Your task to perform on an android device: Clear the shopping cart on newegg. Search for "razer nari" on newegg, select the first entry, and add it to the cart. Image 0: 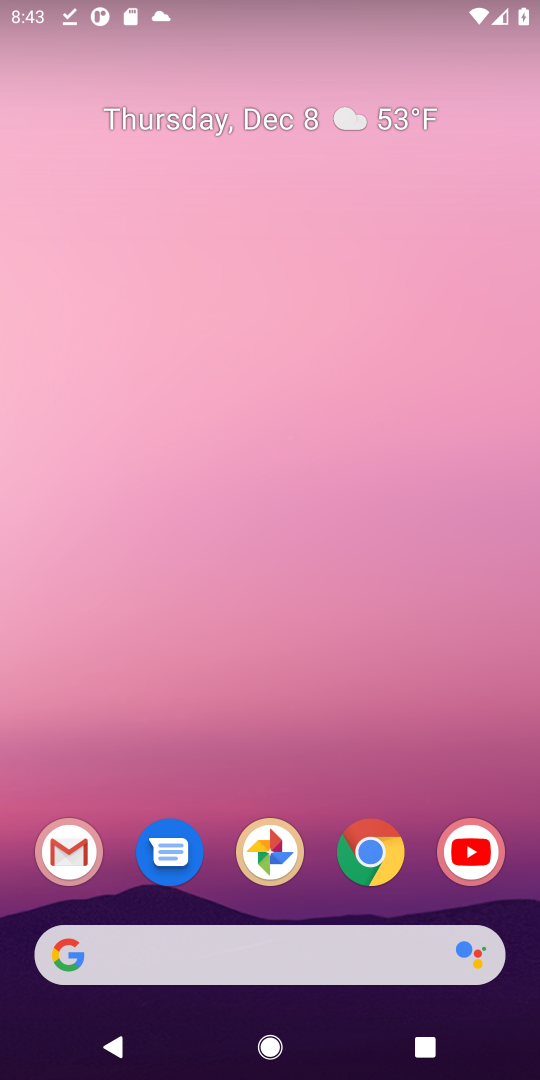
Step 0: click (288, 963)
Your task to perform on an android device: Clear the shopping cart on newegg. Search for "razer nari" on newegg, select the first entry, and add it to the cart. Image 1: 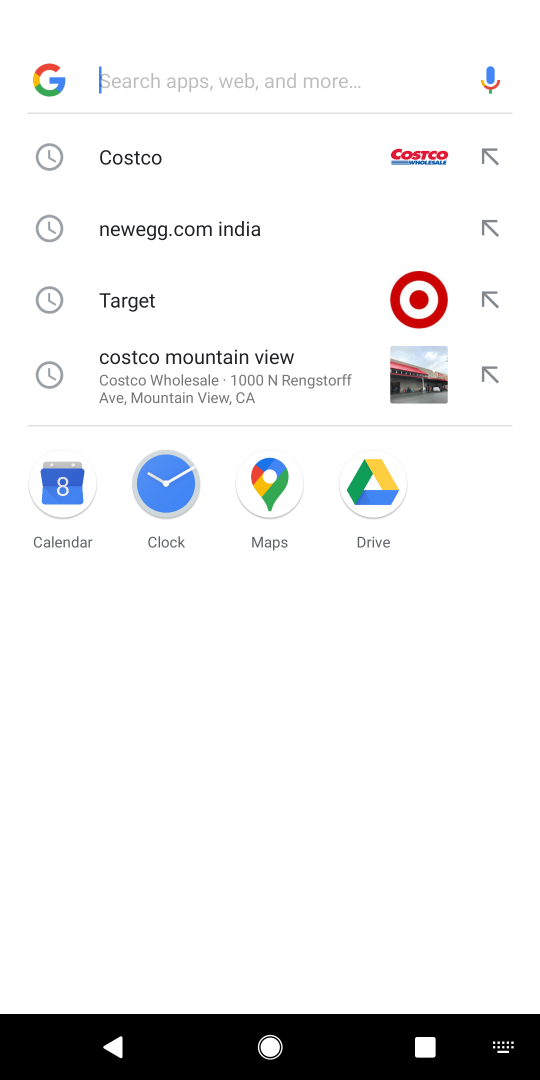
Step 1: type "newegg"
Your task to perform on an android device: Clear the shopping cart on newegg. Search for "razer nari" on newegg, select the first entry, and add it to the cart. Image 2: 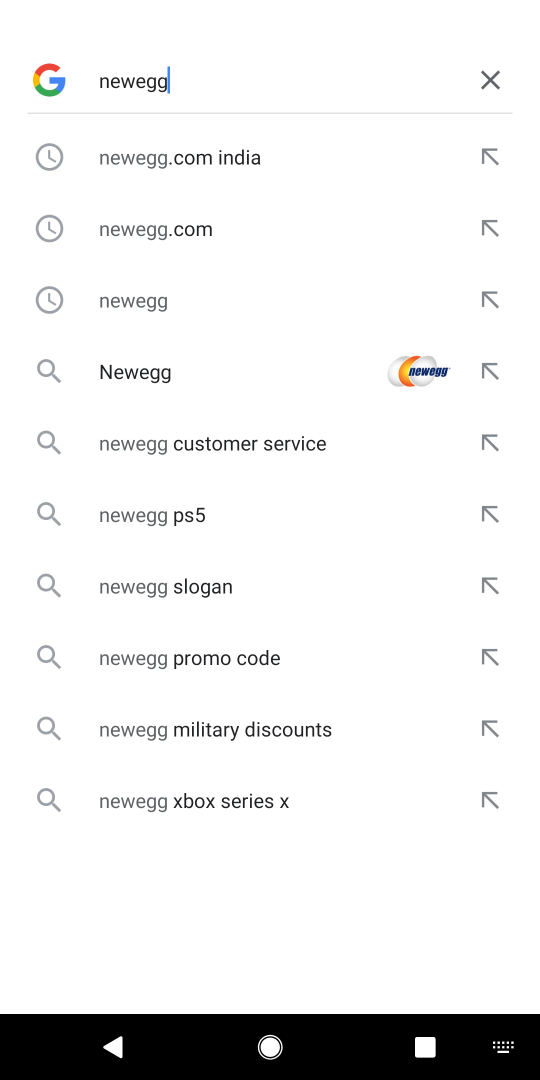
Step 2: click (156, 228)
Your task to perform on an android device: Clear the shopping cart on newegg. Search for "razer nari" on newegg, select the first entry, and add it to the cart. Image 3: 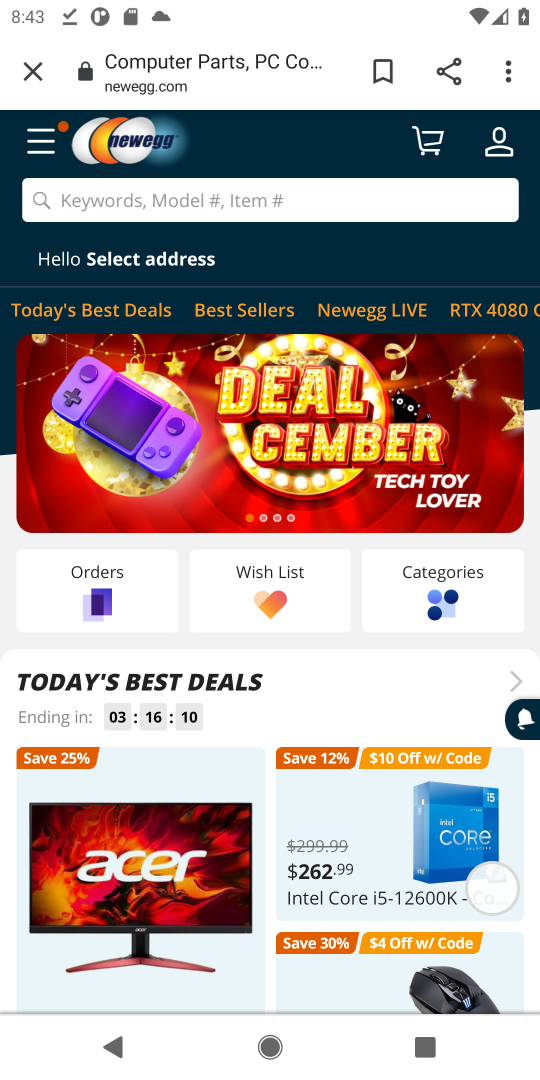
Step 3: click (159, 206)
Your task to perform on an android device: Clear the shopping cart on newegg. Search for "razer nari" on newegg, select the first entry, and add it to the cart. Image 4: 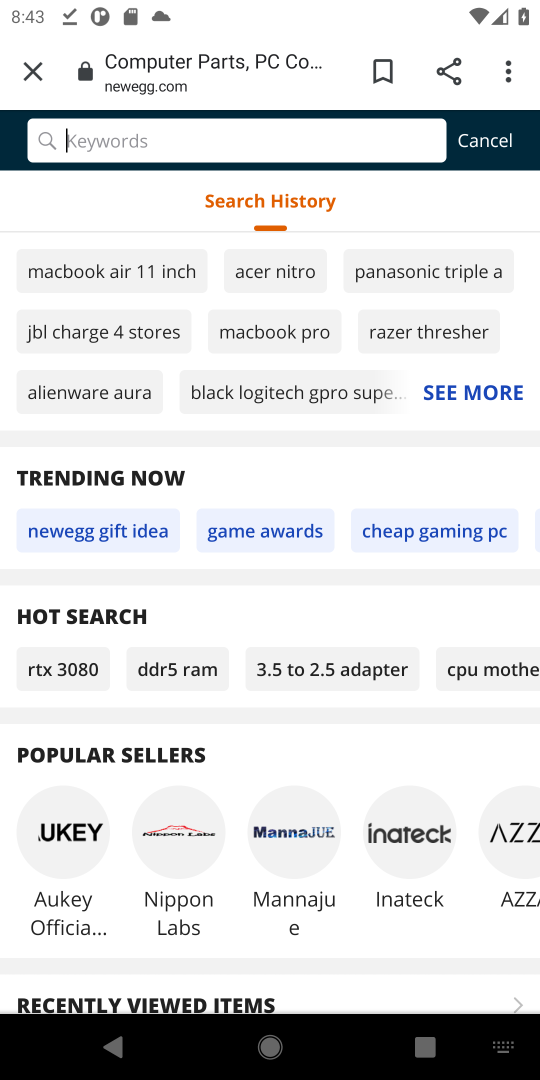
Step 4: type "razer nari"
Your task to perform on an android device: Clear the shopping cart on newegg. Search for "razer nari" on newegg, select the first entry, and add it to the cart. Image 5: 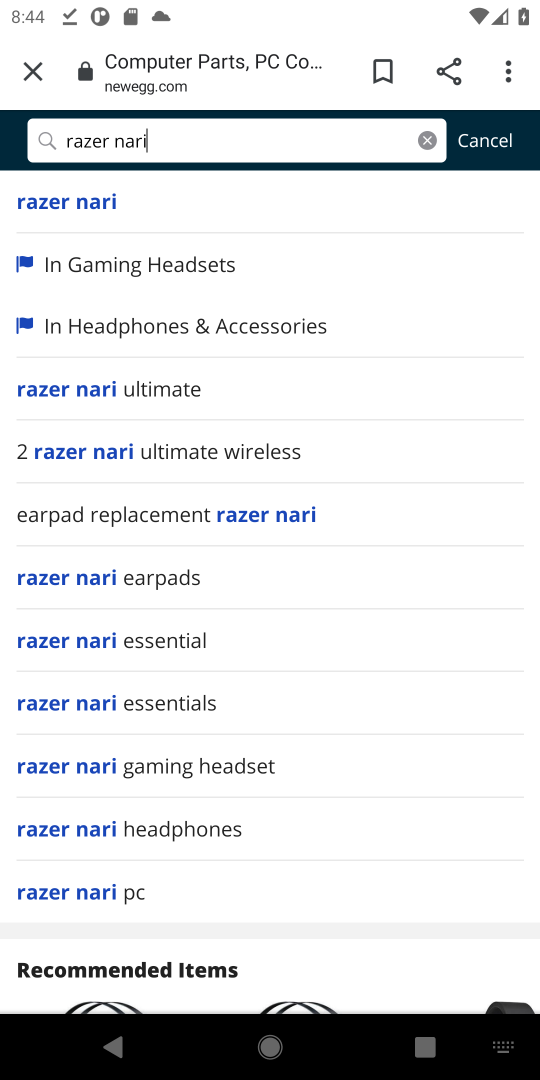
Step 5: click (51, 196)
Your task to perform on an android device: Clear the shopping cart on newegg. Search for "razer nari" on newegg, select the first entry, and add it to the cart. Image 6: 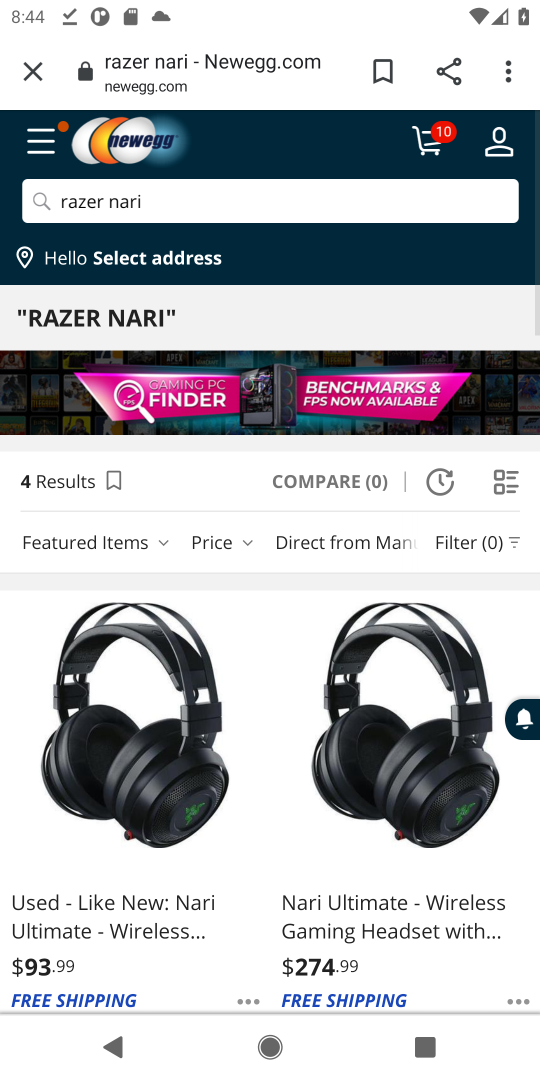
Step 6: click (105, 859)
Your task to perform on an android device: Clear the shopping cart on newegg. Search for "razer nari" on newegg, select the first entry, and add it to the cart. Image 7: 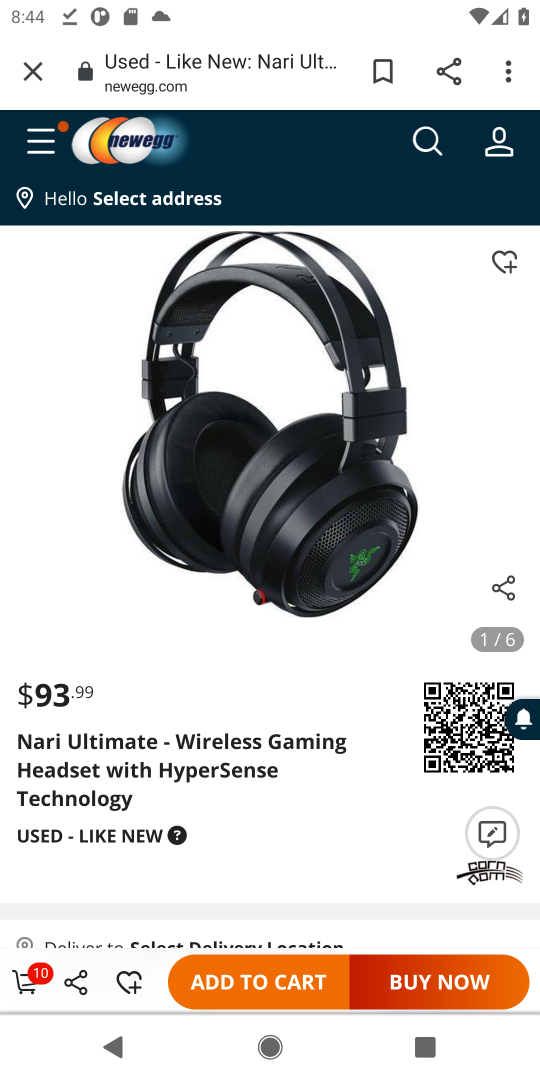
Step 7: click (225, 1003)
Your task to perform on an android device: Clear the shopping cart on newegg. Search for "razer nari" on newegg, select the first entry, and add it to the cart. Image 8: 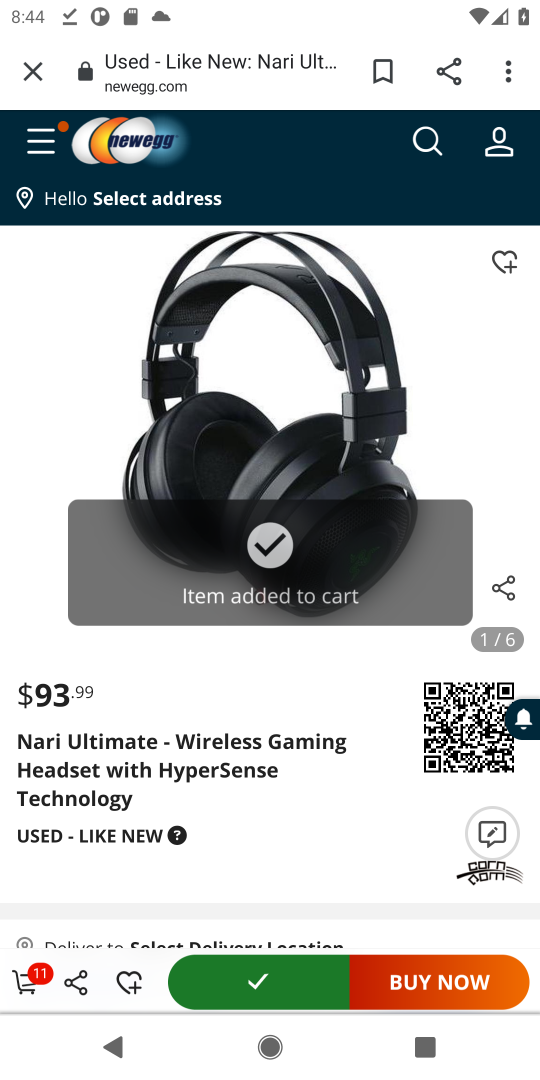
Step 8: task complete